Your task to perform on an android device: Open Google Maps and go to "Timeline" Image 0: 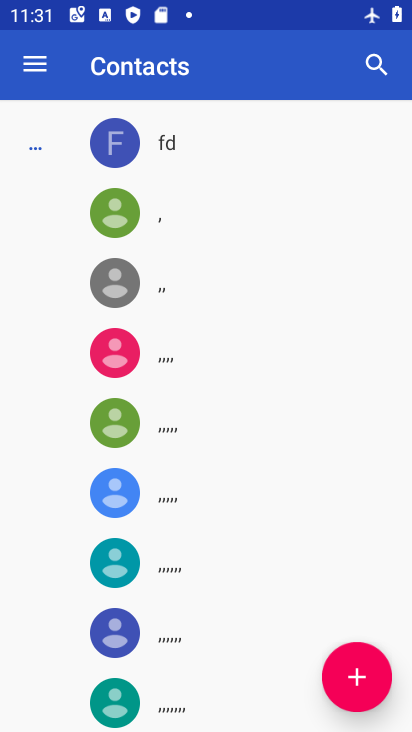
Step 0: press home button
Your task to perform on an android device: Open Google Maps and go to "Timeline" Image 1: 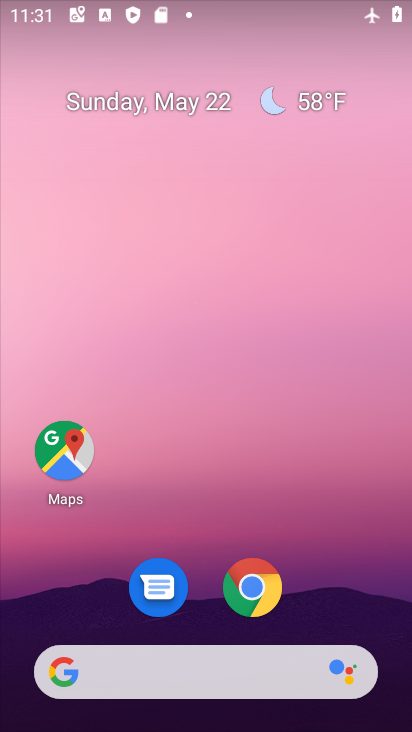
Step 1: click (62, 447)
Your task to perform on an android device: Open Google Maps and go to "Timeline" Image 2: 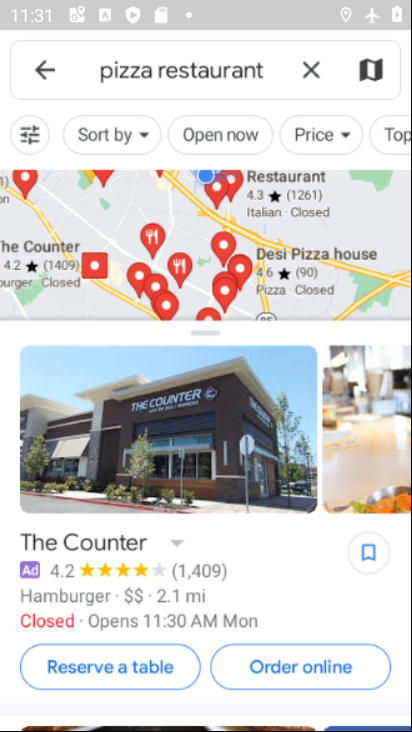
Step 2: click (308, 63)
Your task to perform on an android device: Open Google Maps and go to "Timeline" Image 3: 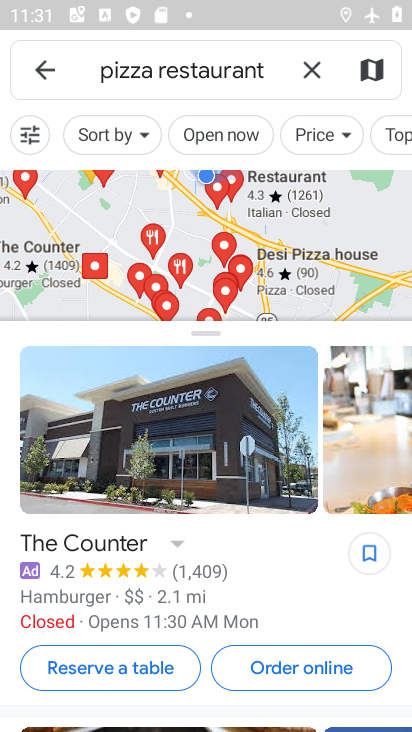
Step 3: click (310, 59)
Your task to perform on an android device: Open Google Maps and go to "Timeline" Image 4: 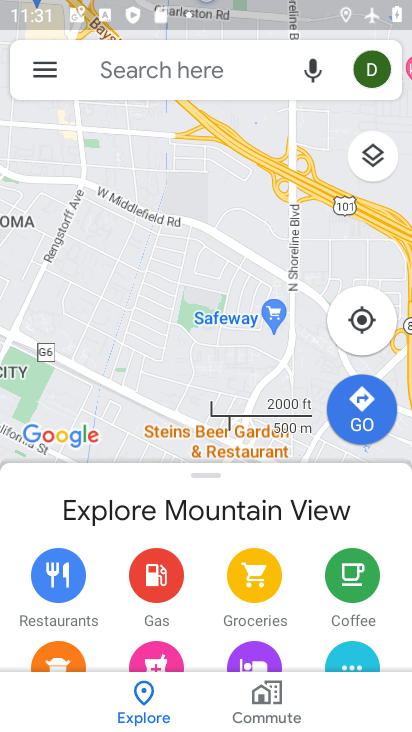
Step 4: click (42, 66)
Your task to perform on an android device: Open Google Maps and go to "Timeline" Image 5: 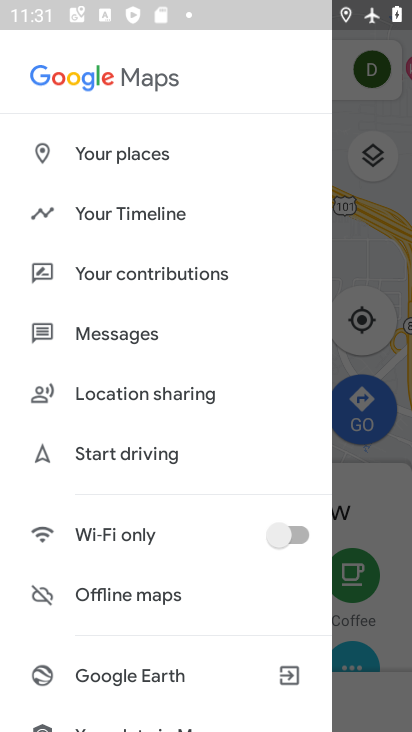
Step 5: click (107, 199)
Your task to perform on an android device: Open Google Maps and go to "Timeline" Image 6: 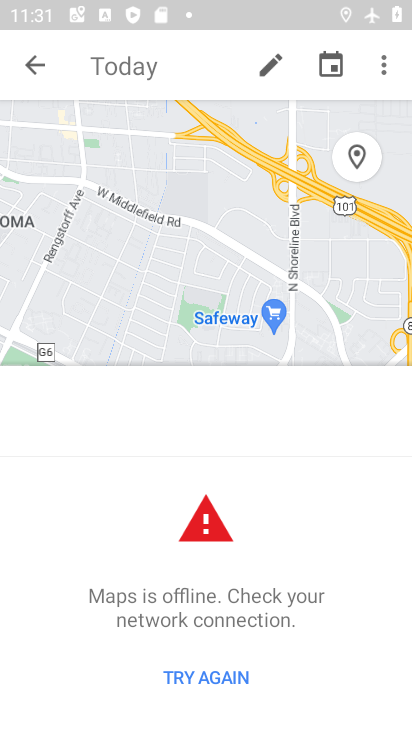
Step 6: task complete